Your task to perform on an android device: check android version Image 0: 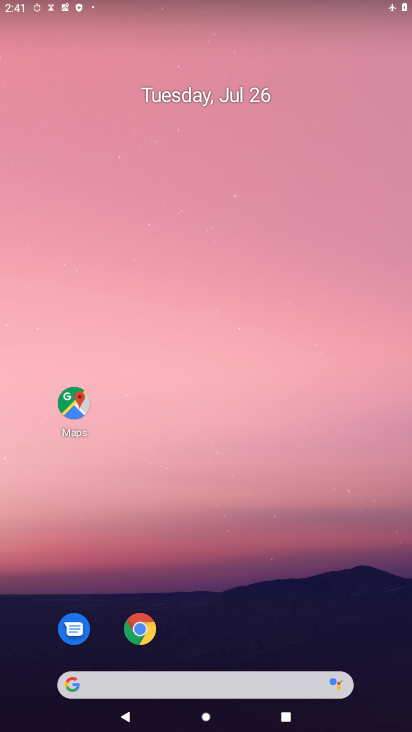
Step 0: drag from (313, 464) to (355, 2)
Your task to perform on an android device: check android version Image 1: 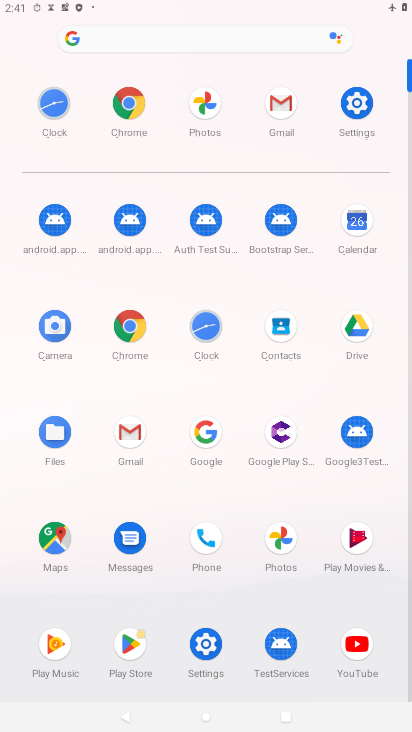
Step 1: click (359, 103)
Your task to perform on an android device: check android version Image 2: 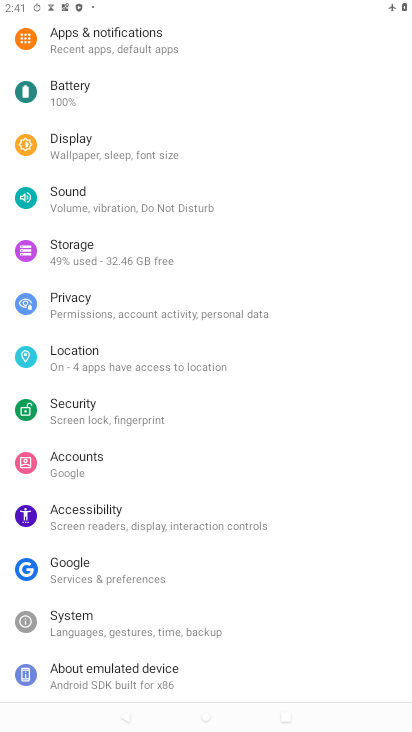
Step 2: click (157, 685)
Your task to perform on an android device: check android version Image 3: 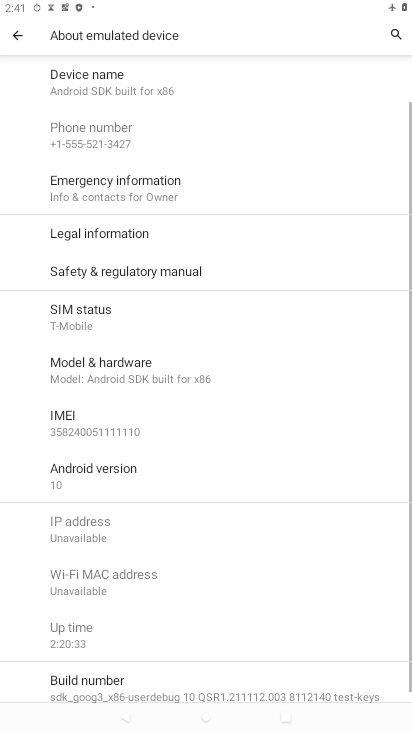
Step 3: click (126, 479)
Your task to perform on an android device: check android version Image 4: 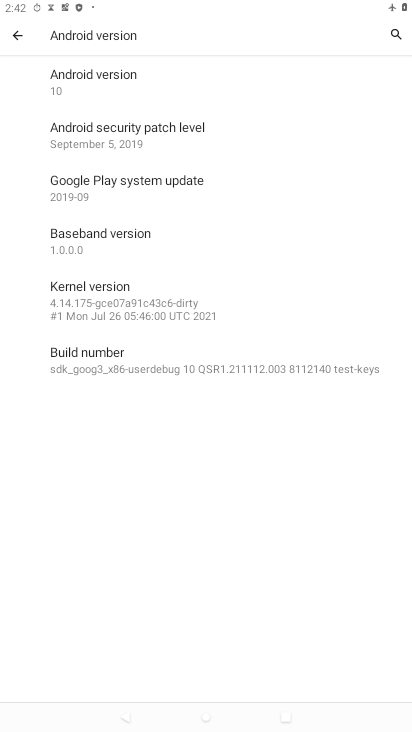
Step 4: task complete